Your task to perform on an android device: Set the phone to "Do not disturb". Image 0: 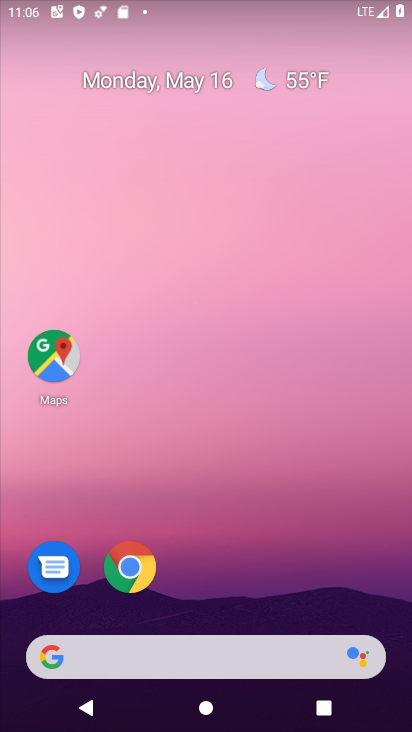
Step 0: click (259, 172)
Your task to perform on an android device: Set the phone to "Do not disturb". Image 1: 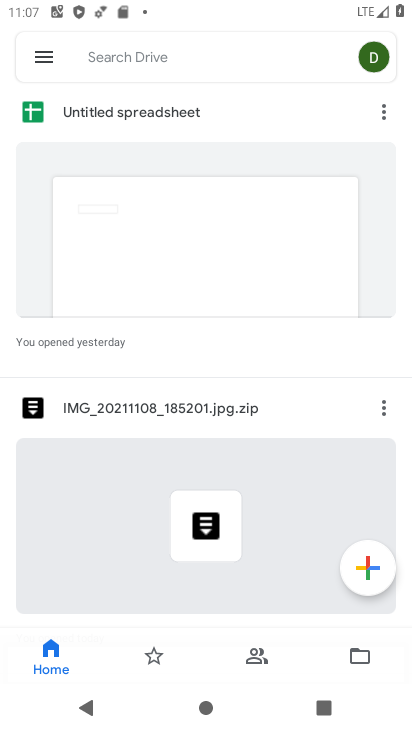
Step 1: press home button
Your task to perform on an android device: Set the phone to "Do not disturb". Image 2: 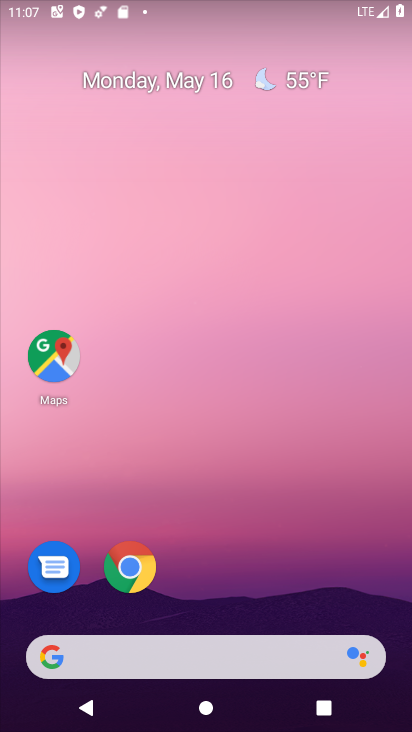
Step 2: drag from (263, 574) to (353, 62)
Your task to perform on an android device: Set the phone to "Do not disturb". Image 3: 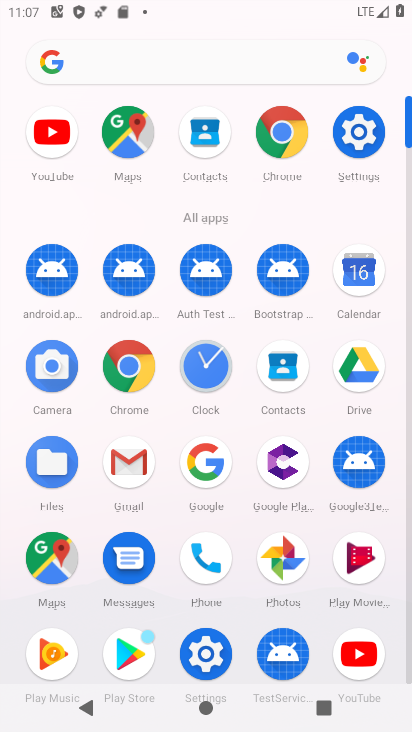
Step 3: click (209, 666)
Your task to perform on an android device: Set the phone to "Do not disturb". Image 4: 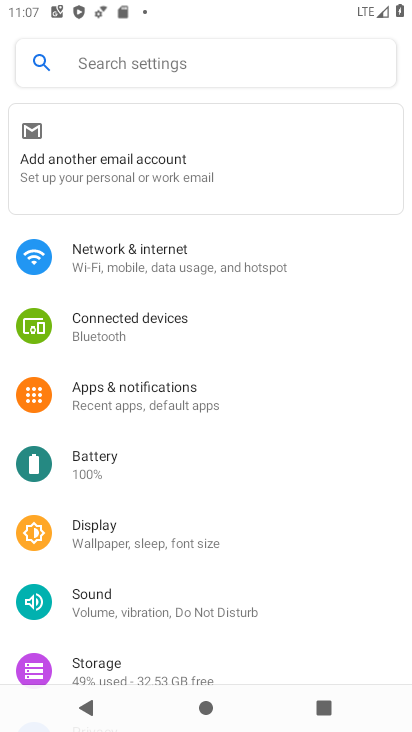
Step 4: click (200, 411)
Your task to perform on an android device: Set the phone to "Do not disturb". Image 5: 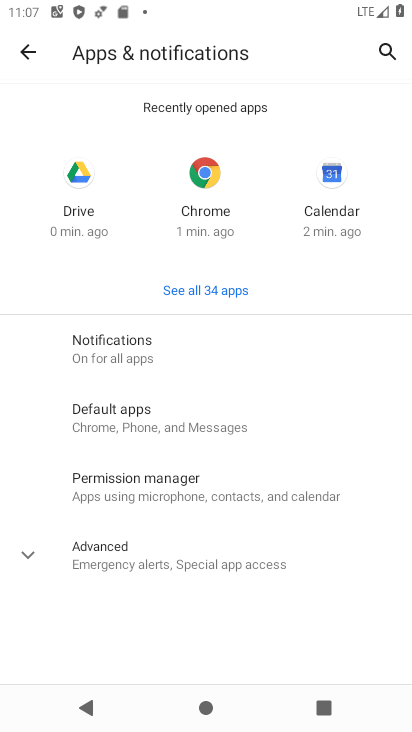
Step 5: click (200, 570)
Your task to perform on an android device: Set the phone to "Do not disturb". Image 6: 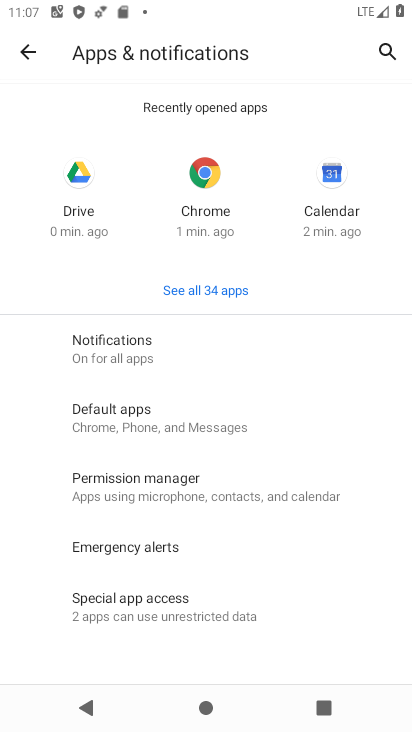
Step 6: click (208, 361)
Your task to perform on an android device: Set the phone to "Do not disturb". Image 7: 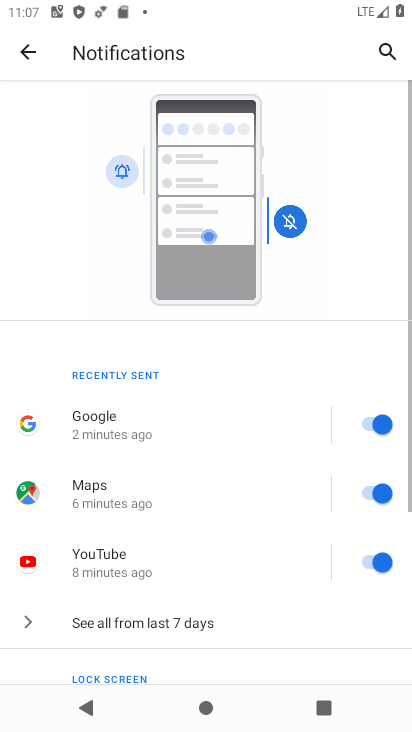
Step 7: drag from (153, 622) to (338, 109)
Your task to perform on an android device: Set the phone to "Do not disturb". Image 8: 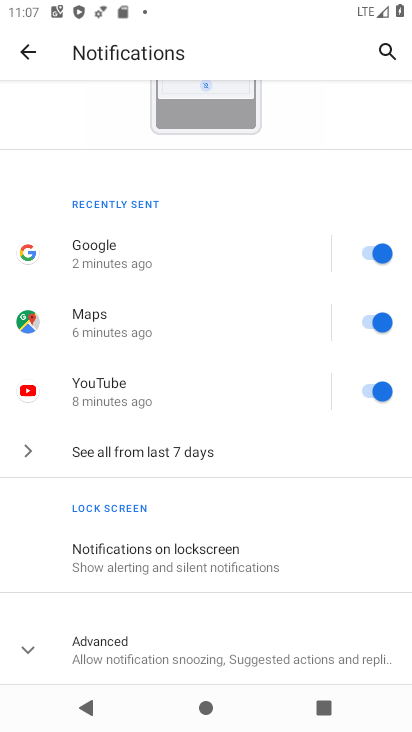
Step 8: click (208, 658)
Your task to perform on an android device: Set the phone to "Do not disturb". Image 9: 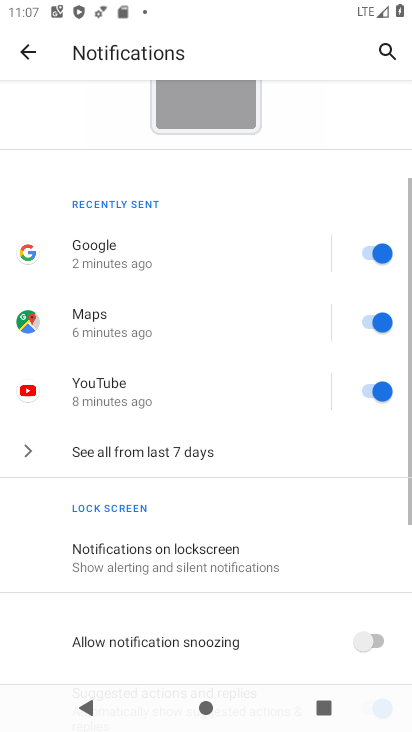
Step 9: drag from (202, 650) to (331, 51)
Your task to perform on an android device: Set the phone to "Do not disturb". Image 10: 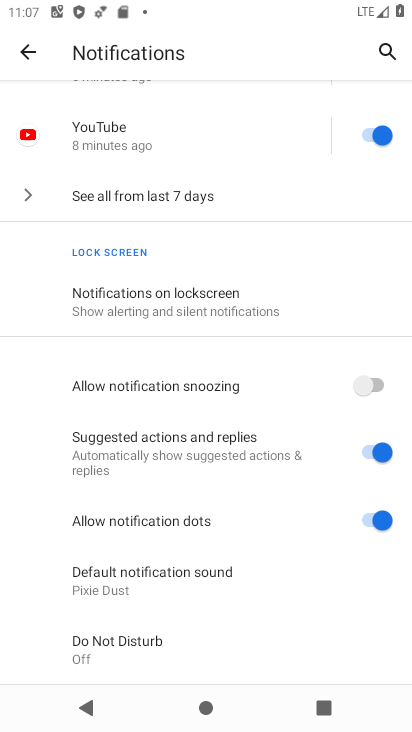
Step 10: click (235, 663)
Your task to perform on an android device: Set the phone to "Do not disturb". Image 11: 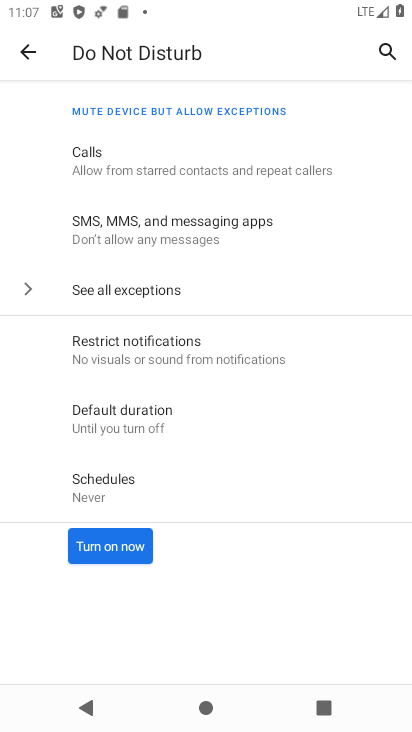
Step 11: click (108, 557)
Your task to perform on an android device: Set the phone to "Do not disturb". Image 12: 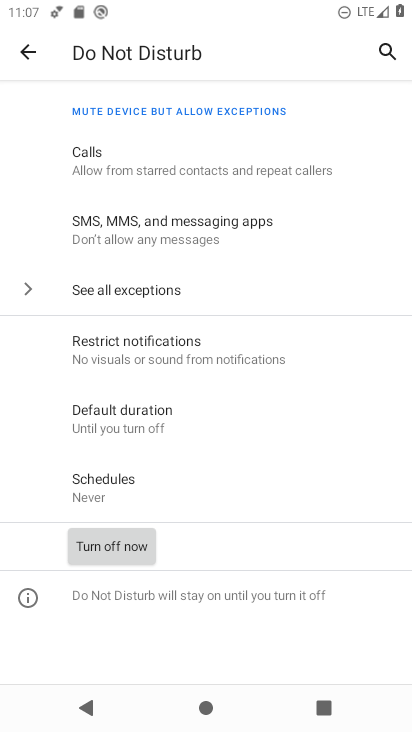
Step 12: task complete